Your task to perform on an android device: Clear all items from cart on walmart.com. Add "logitech g903" to the cart on walmart.com Image 0: 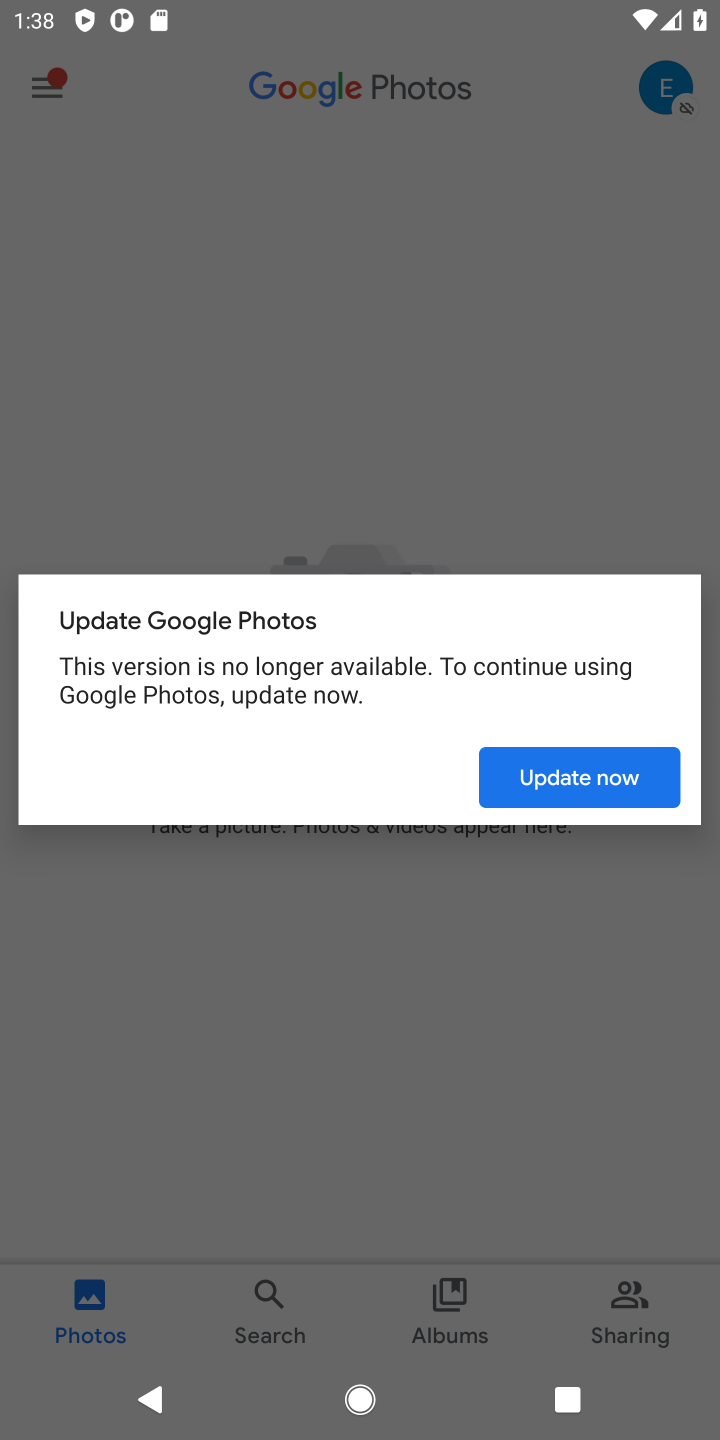
Step 0: task complete